Your task to perform on an android device: Search for Mexican restaurants on Maps Image 0: 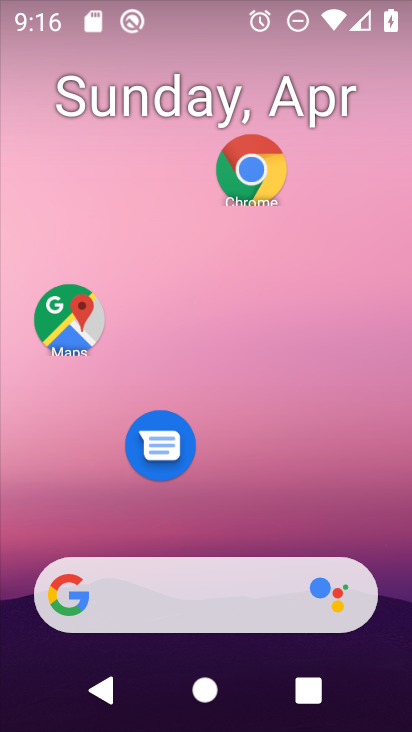
Step 0: click (70, 318)
Your task to perform on an android device: Search for Mexican restaurants on Maps Image 1: 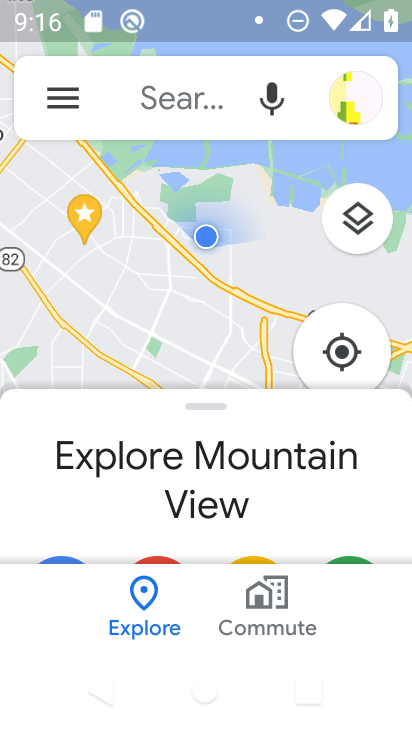
Step 1: click (177, 96)
Your task to perform on an android device: Search for Mexican restaurants on Maps Image 2: 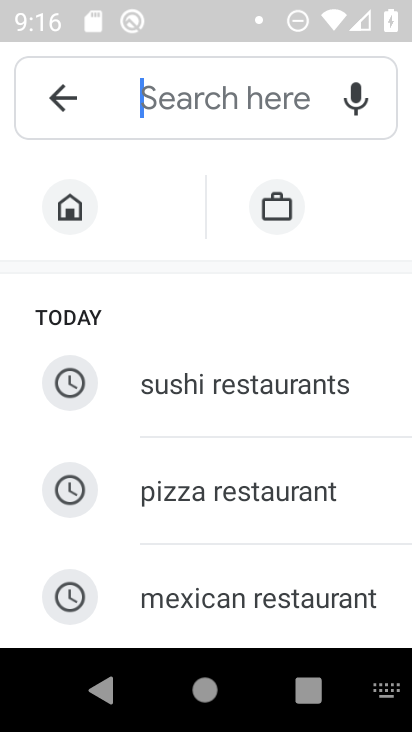
Step 2: drag from (236, 497) to (247, 358)
Your task to perform on an android device: Search for Mexican restaurants on Maps Image 3: 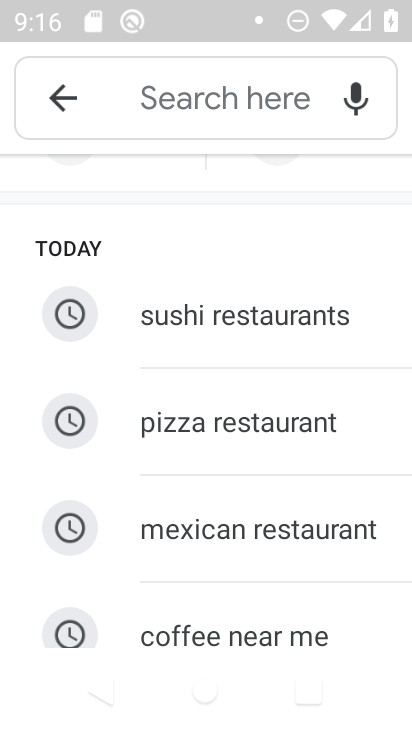
Step 3: click (224, 525)
Your task to perform on an android device: Search for Mexican restaurants on Maps Image 4: 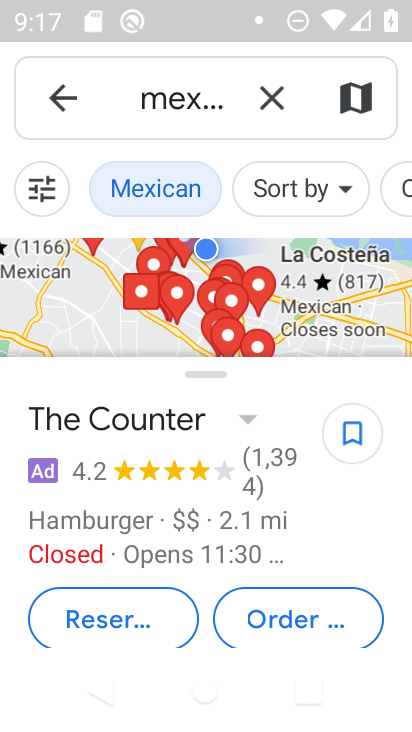
Step 4: task complete